Your task to perform on an android device: Clear all items from cart on amazon.com. Search for "panasonic triple a" on amazon.com, select the first entry, and add it to the cart. Image 0: 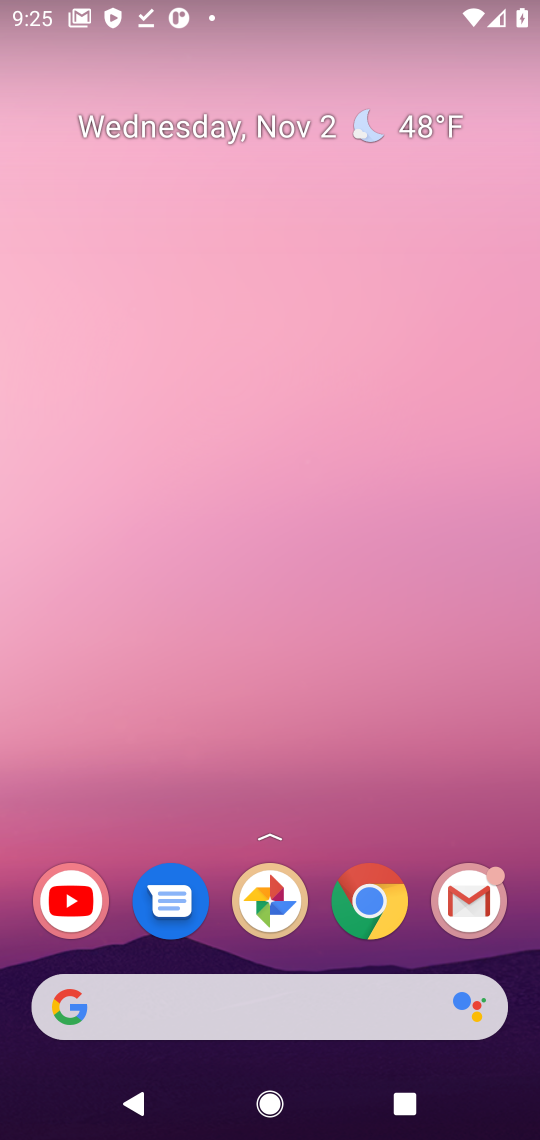
Step 0: click (391, 901)
Your task to perform on an android device: Clear all items from cart on amazon.com. Search for "panasonic triple a" on amazon.com, select the first entry, and add it to the cart. Image 1: 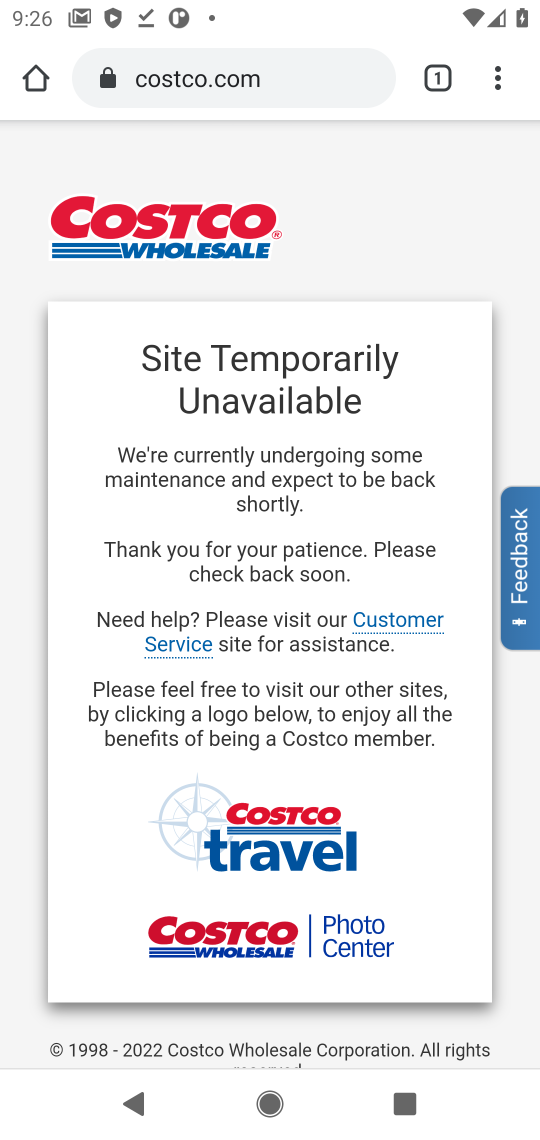
Step 1: click (258, 96)
Your task to perform on an android device: Clear all items from cart on amazon.com. Search for "panasonic triple a" on amazon.com, select the first entry, and add it to the cart. Image 2: 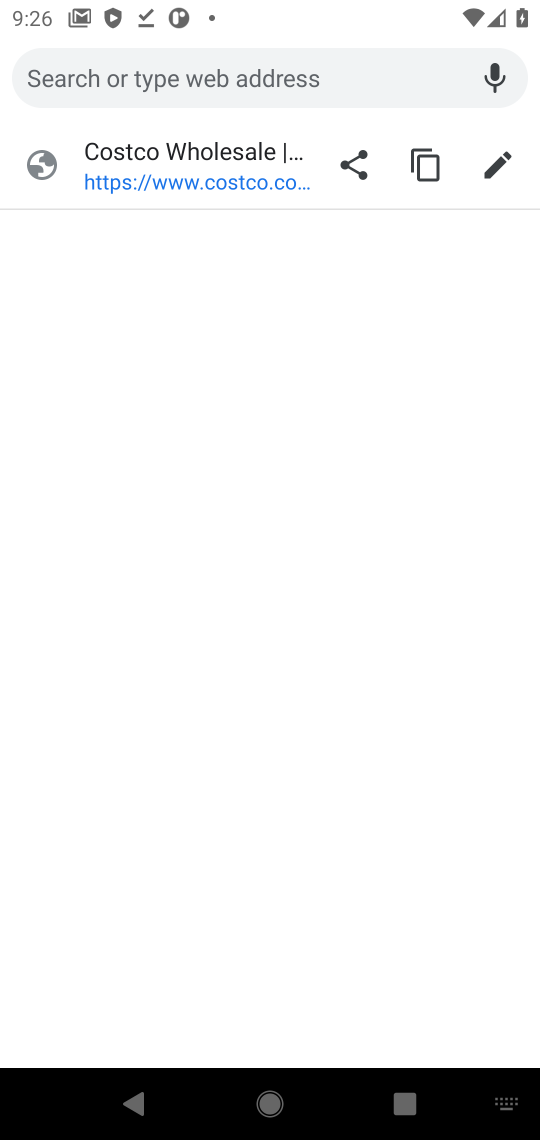
Step 2: type "amazon.com"
Your task to perform on an android device: Clear all items from cart on amazon.com. Search for "panasonic triple a" on amazon.com, select the first entry, and add it to the cart. Image 3: 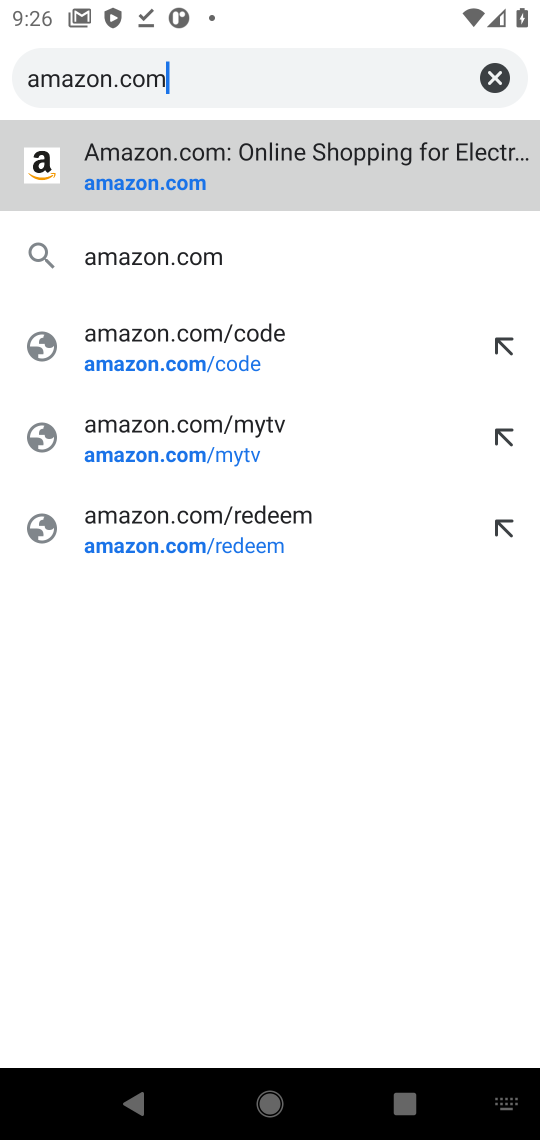
Step 3: click (440, 183)
Your task to perform on an android device: Clear all items from cart on amazon.com. Search for "panasonic triple a" on amazon.com, select the first entry, and add it to the cart. Image 4: 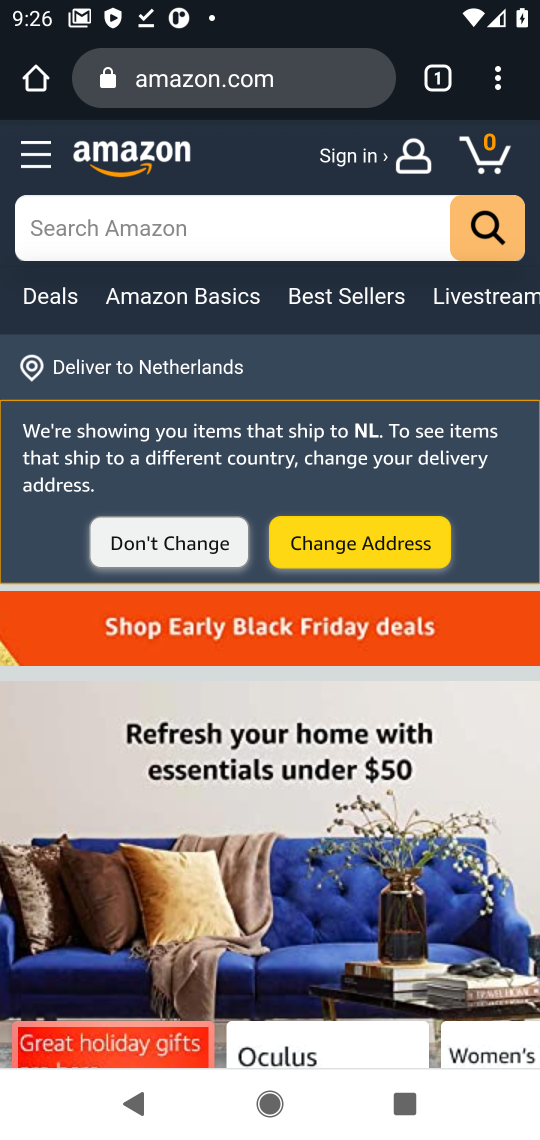
Step 4: click (256, 222)
Your task to perform on an android device: Clear all items from cart on amazon.com. Search for "panasonic triple a" on amazon.com, select the first entry, and add it to the cart. Image 5: 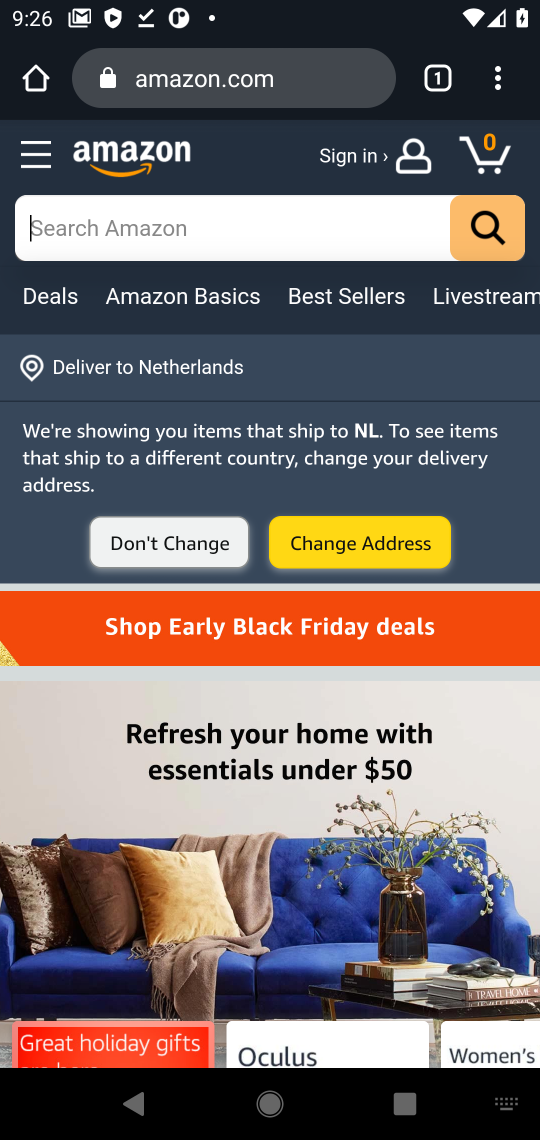
Step 5: click (493, 156)
Your task to perform on an android device: Clear all items from cart on amazon.com. Search for "panasonic triple a" on amazon.com, select the first entry, and add it to the cart. Image 6: 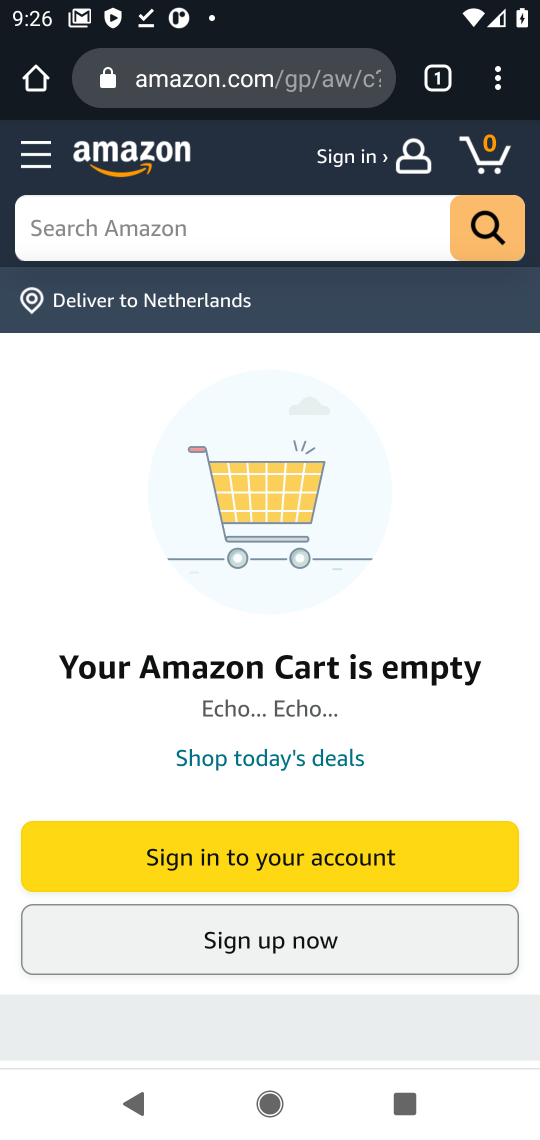
Step 6: click (329, 242)
Your task to perform on an android device: Clear all items from cart on amazon.com. Search for "panasonic triple a" on amazon.com, select the first entry, and add it to the cart. Image 7: 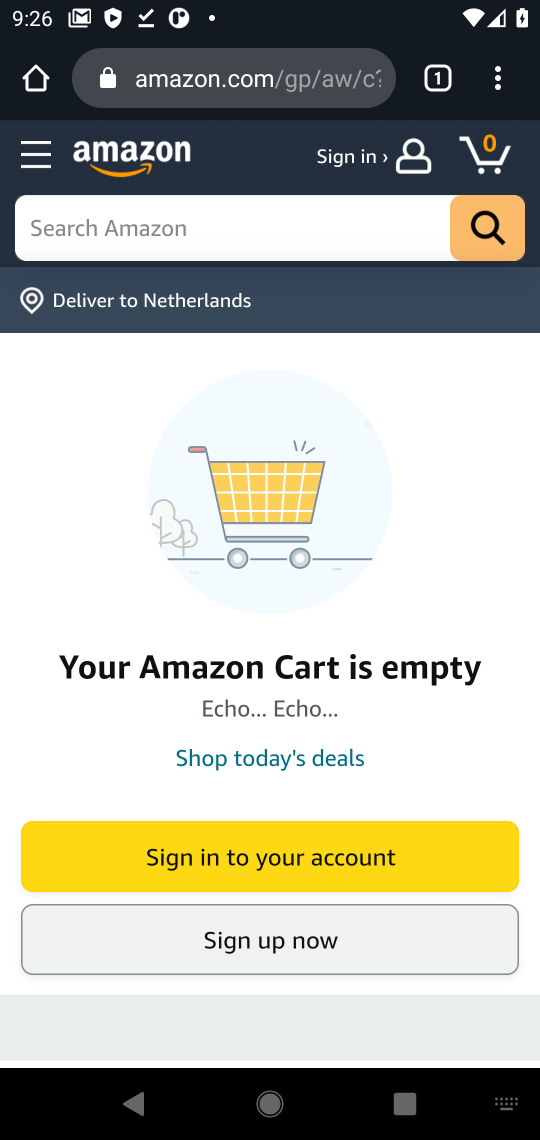
Step 7: type "panasonic triple a"
Your task to perform on an android device: Clear all items from cart on amazon.com. Search for "panasonic triple a" on amazon.com, select the first entry, and add it to the cart. Image 8: 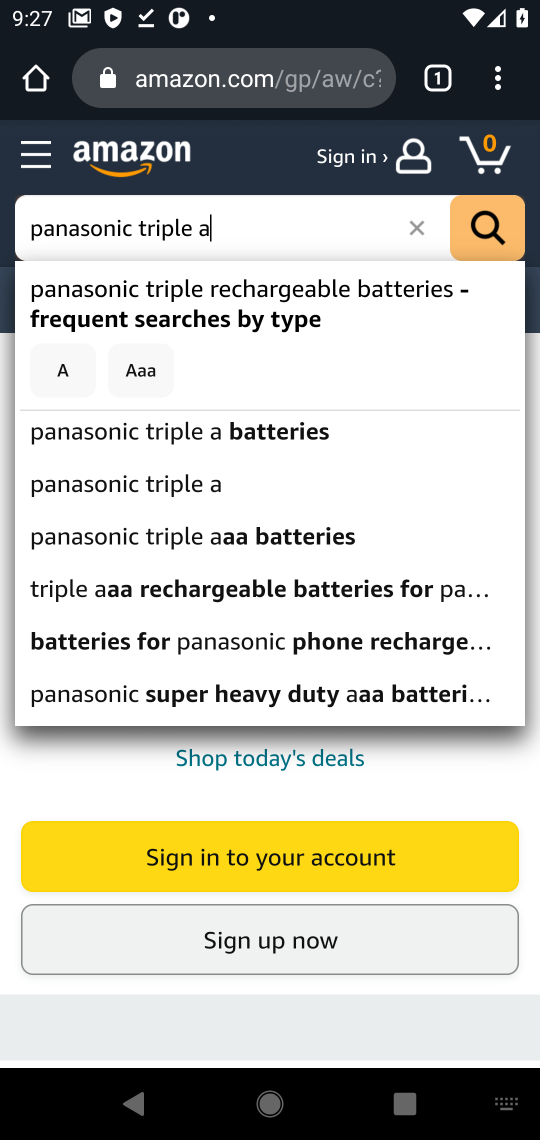
Step 8: click (497, 232)
Your task to perform on an android device: Clear all items from cart on amazon.com. Search for "panasonic triple a" on amazon.com, select the first entry, and add it to the cart. Image 9: 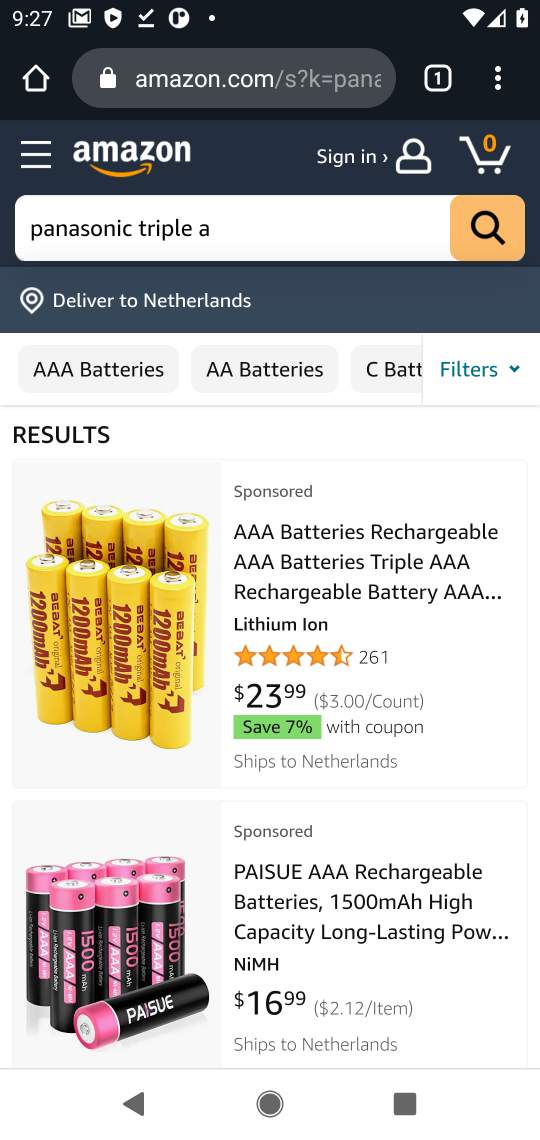
Step 9: click (151, 653)
Your task to perform on an android device: Clear all items from cart on amazon.com. Search for "panasonic triple a" on amazon.com, select the first entry, and add it to the cart. Image 10: 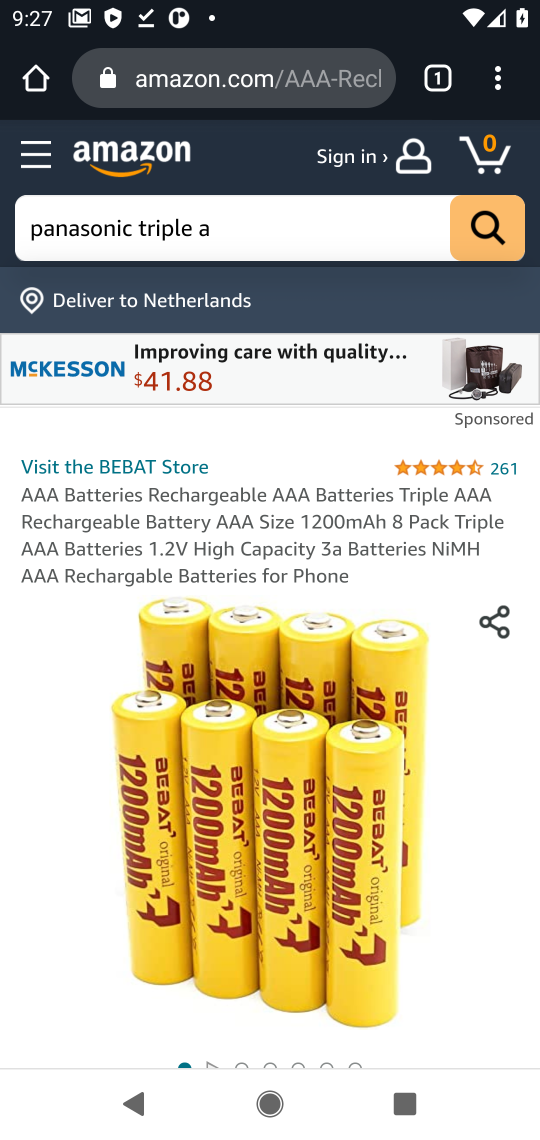
Step 10: drag from (510, 981) to (489, 530)
Your task to perform on an android device: Clear all items from cart on amazon.com. Search for "panasonic triple a" on amazon.com, select the first entry, and add it to the cart. Image 11: 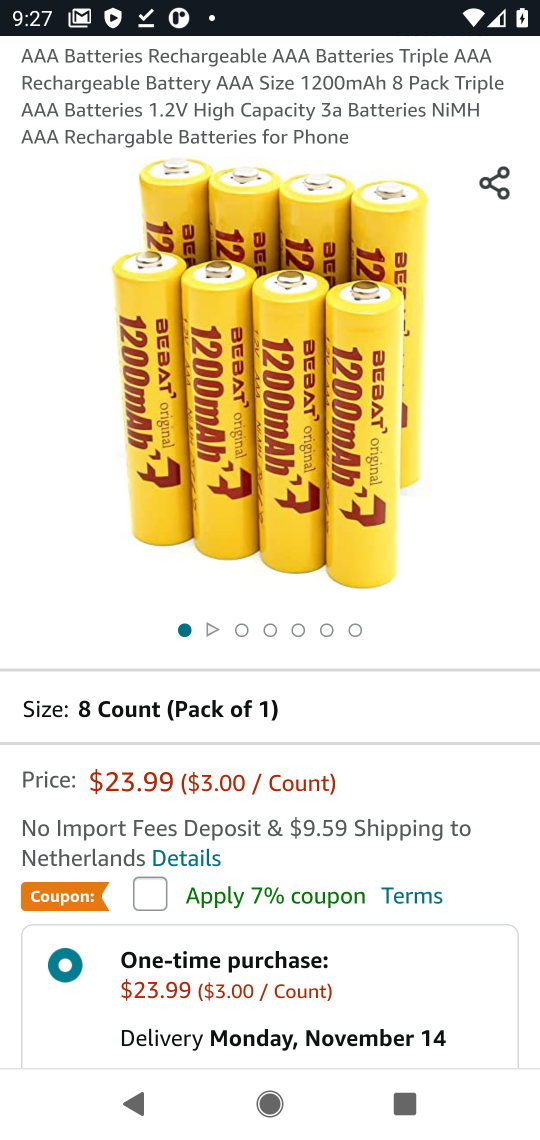
Step 11: drag from (472, 779) to (476, 107)
Your task to perform on an android device: Clear all items from cart on amazon.com. Search for "panasonic triple a" on amazon.com, select the first entry, and add it to the cart. Image 12: 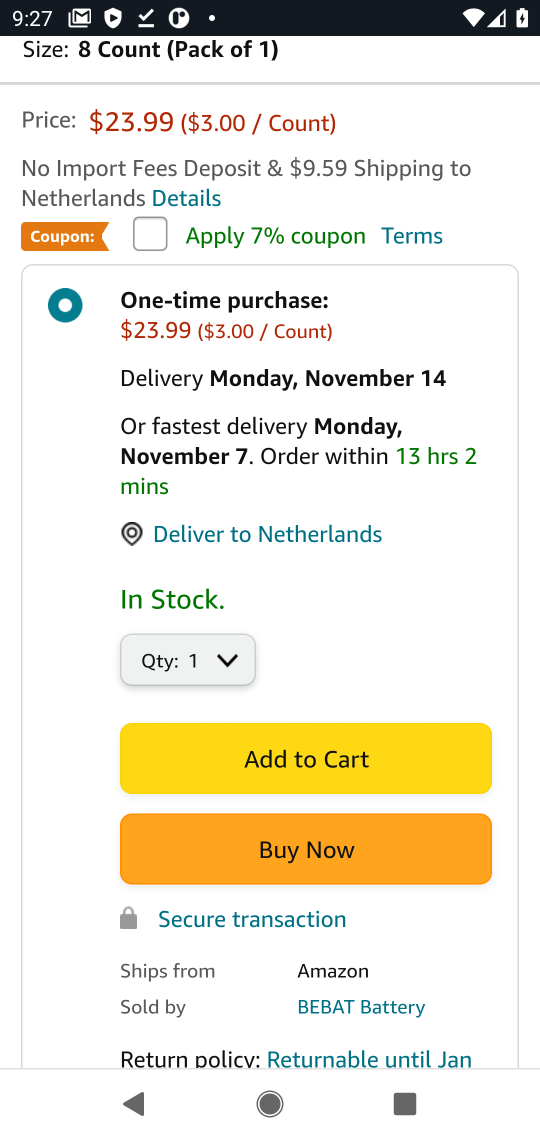
Step 12: click (290, 767)
Your task to perform on an android device: Clear all items from cart on amazon.com. Search for "panasonic triple a" on amazon.com, select the first entry, and add it to the cart. Image 13: 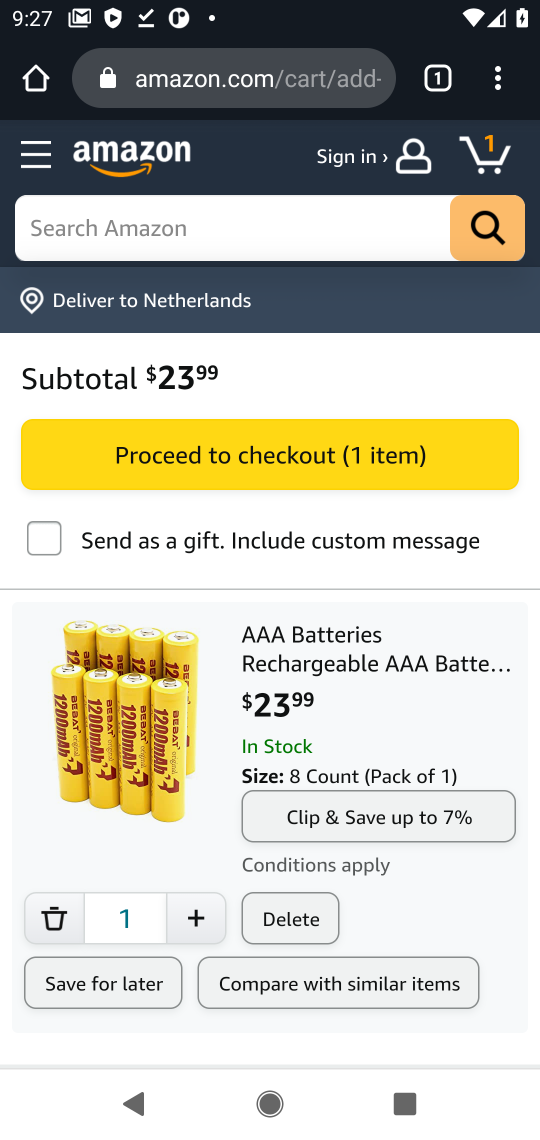
Step 13: task complete